Your task to perform on an android device: check out phone information Image 0: 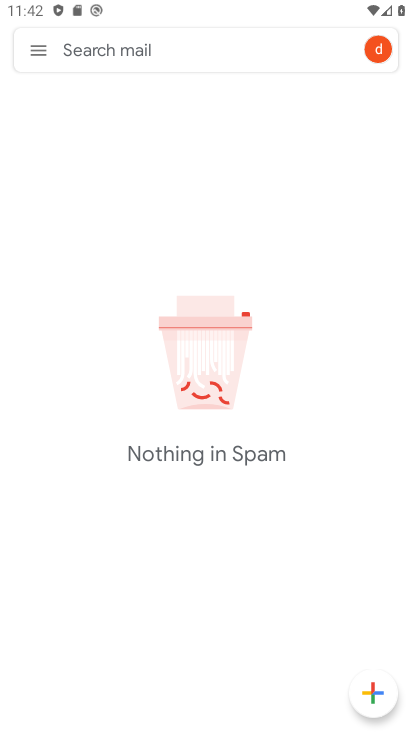
Step 0: press home button
Your task to perform on an android device: check out phone information Image 1: 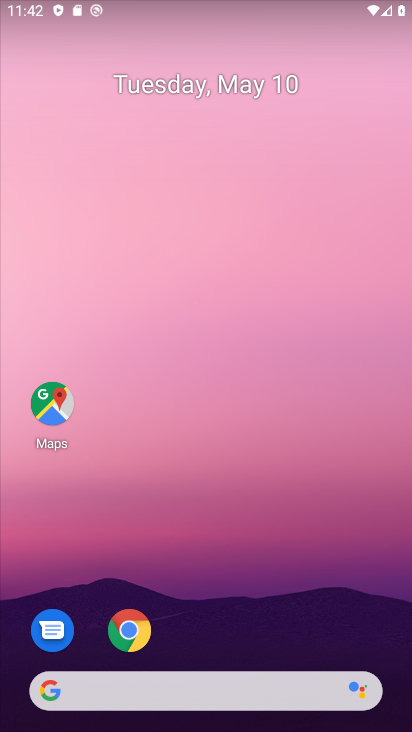
Step 1: drag from (245, 663) to (135, 4)
Your task to perform on an android device: check out phone information Image 2: 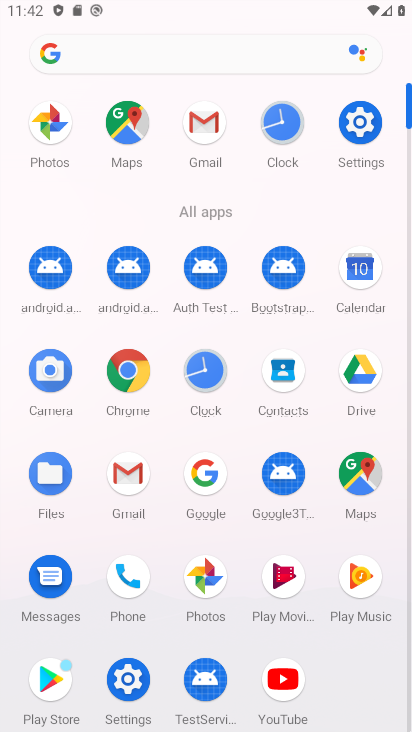
Step 2: click (351, 119)
Your task to perform on an android device: check out phone information Image 3: 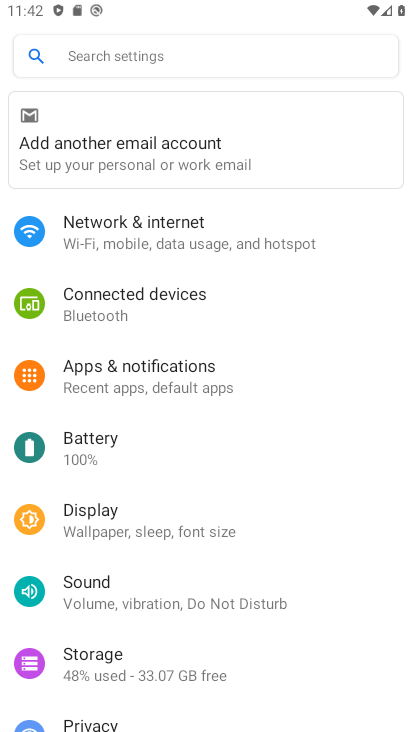
Step 3: drag from (297, 571) to (254, 173)
Your task to perform on an android device: check out phone information Image 4: 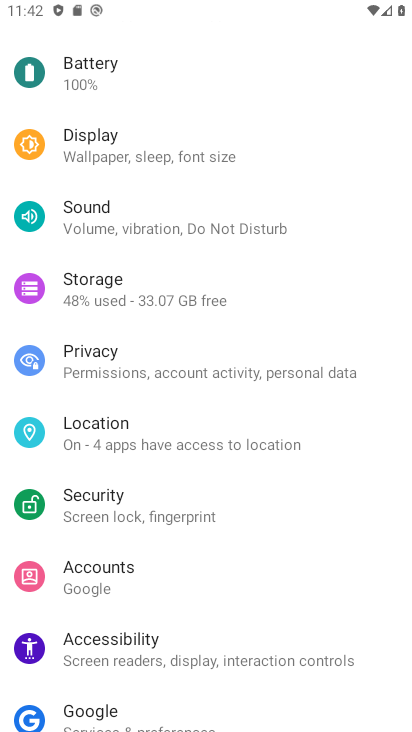
Step 4: drag from (172, 581) to (144, 96)
Your task to perform on an android device: check out phone information Image 5: 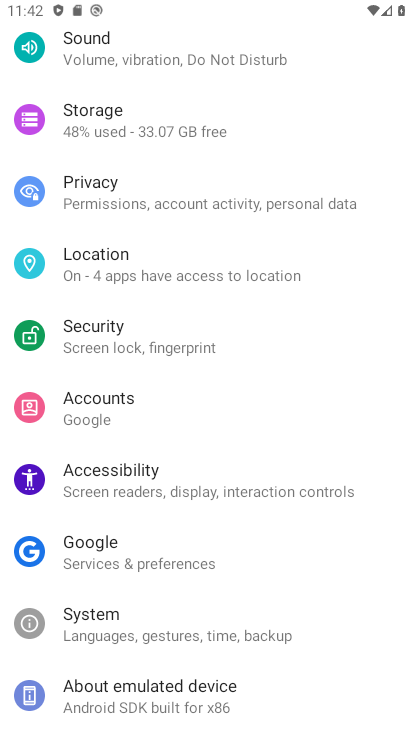
Step 5: click (126, 694)
Your task to perform on an android device: check out phone information Image 6: 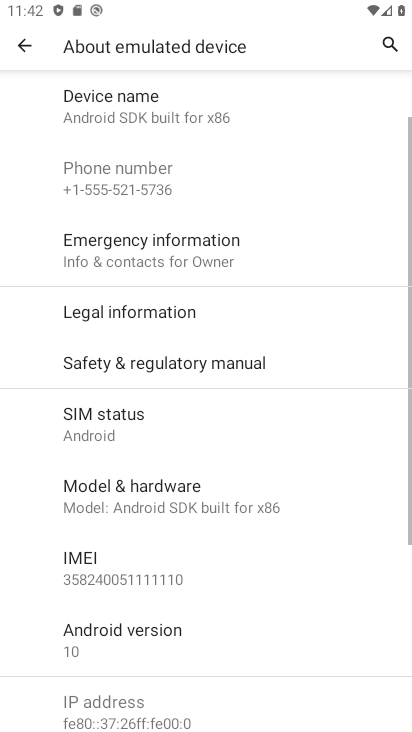
Step 6: task complete